Your task to perform on an android device: turn off notifications in google photos Image 0: 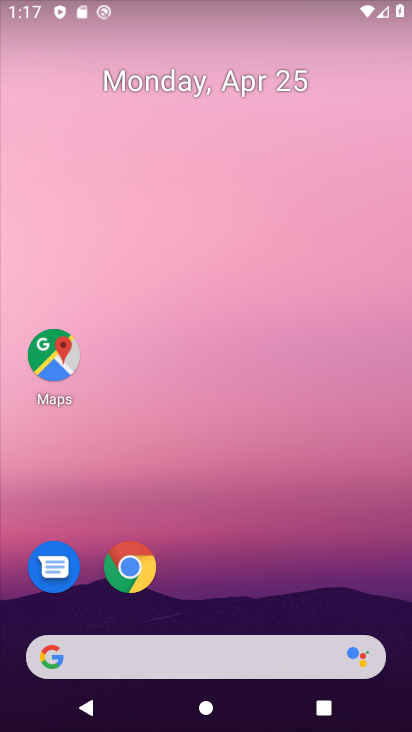
Step 0: drag from (246, 550) to (194, 140)
Your task to perform on an android device: turn off notifications in google photos Image 1: 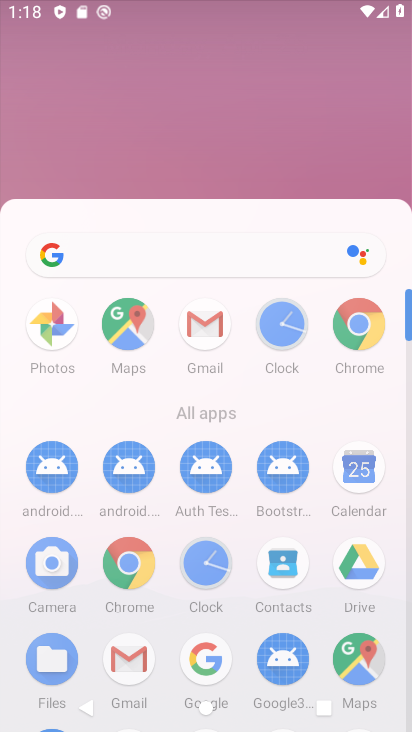
Step 1: drag from (190, 125) to (163, 38)
Your task to perform on an android device: turn off notifications in google photos Image 2: 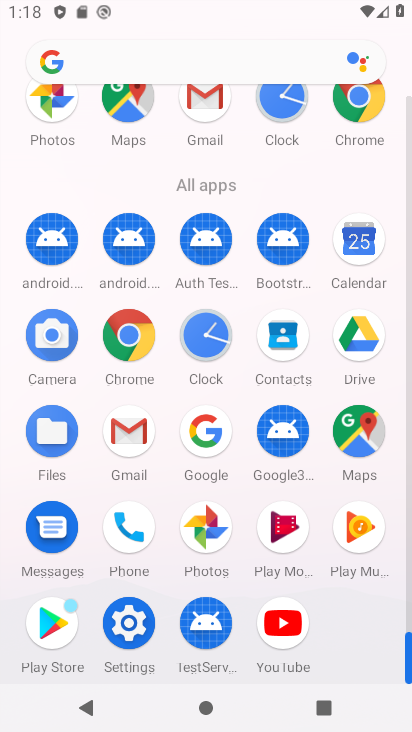
Step 2: click (185, 542)
Your task to perform on an android device: turn off notifications in google photos Image 3: 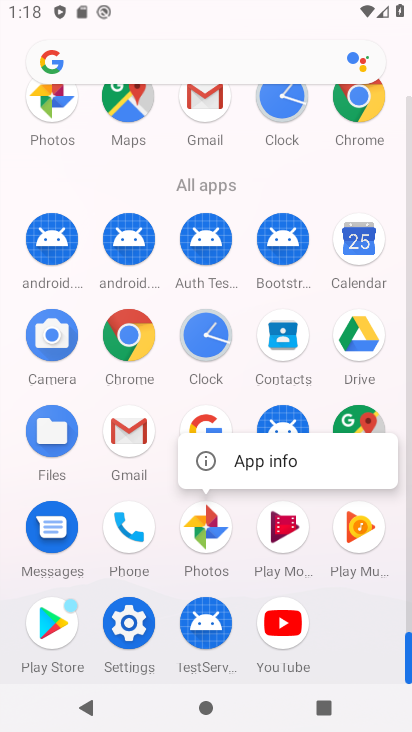
Step 3: click (217, 543)
Your task to perform on an android device: turn off notifications in google photos Image 4: 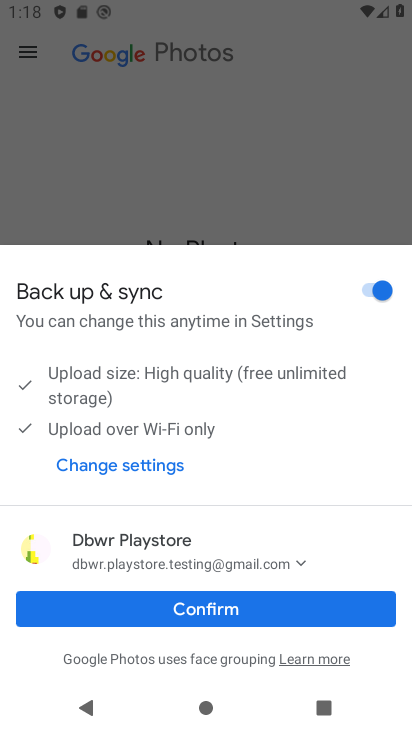
Step 4: click (218, 608)
Your task to perform on an android device: turn off notifications in google photos Image 5: 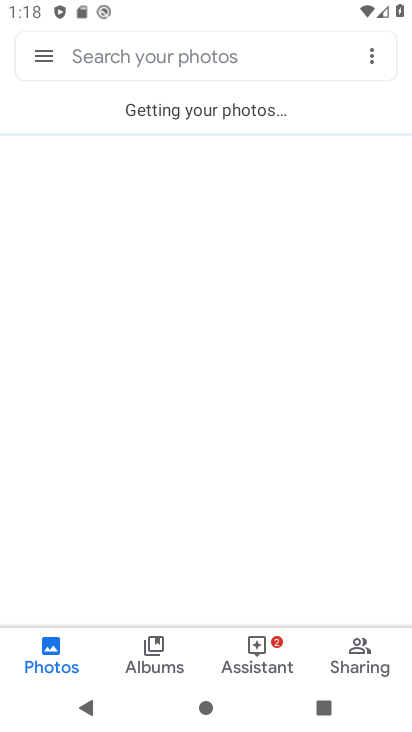
Step 5: click (46, 47)
Your task to perform on an android device: turn off notifications in google photos Image 6: 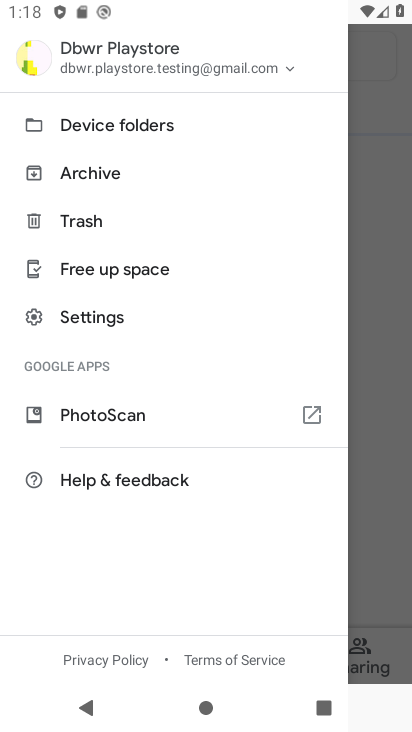
Step 6: click (92, 320)
Your task to perform on an android device: turn off notifications in google photos Image 7: 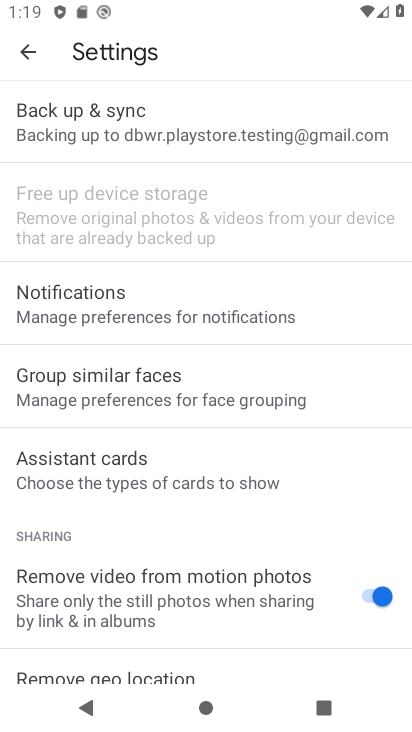
Step 7: drag from (173, 491) to (125, 431)
Your task to perform on an android device: turn off notifications in google photos Image 8: 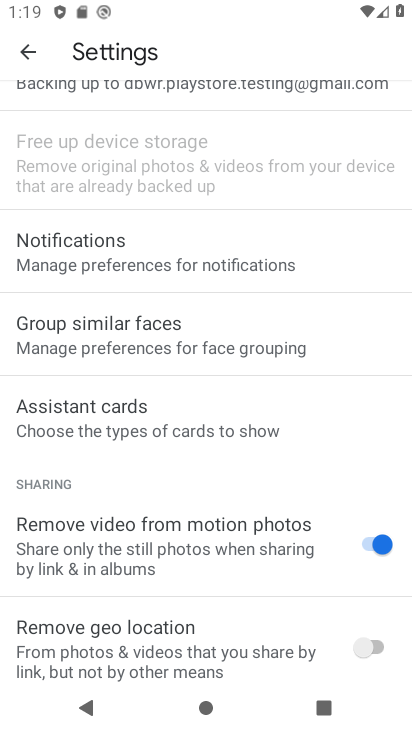
Step 8: click (101, 268)
Your task to perform on an android device: turn off notifications in google photos Image 9: 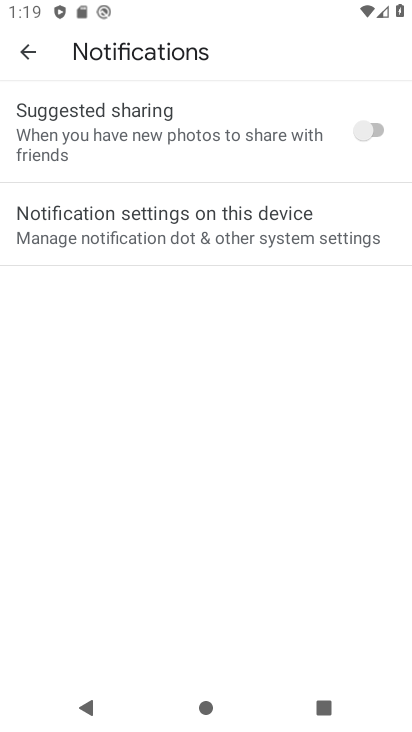
Step 9: click (216, 233)
Your task to perform on an android device: turn off notifications in google photos Image 10: 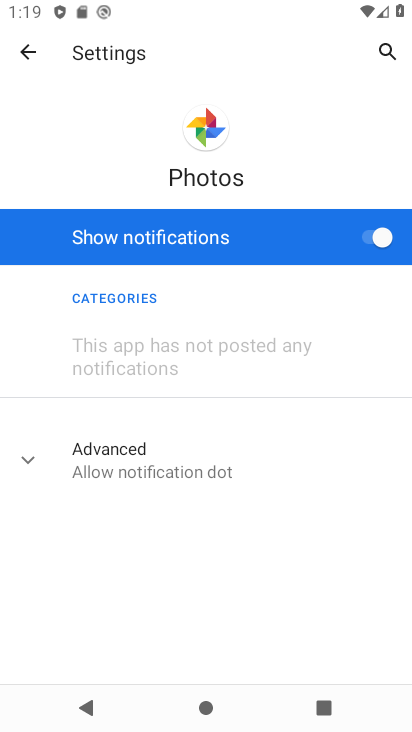
Step 10: click (386, 250)
Your task to perform on an android device: turn off notifications in google photos Image 11: 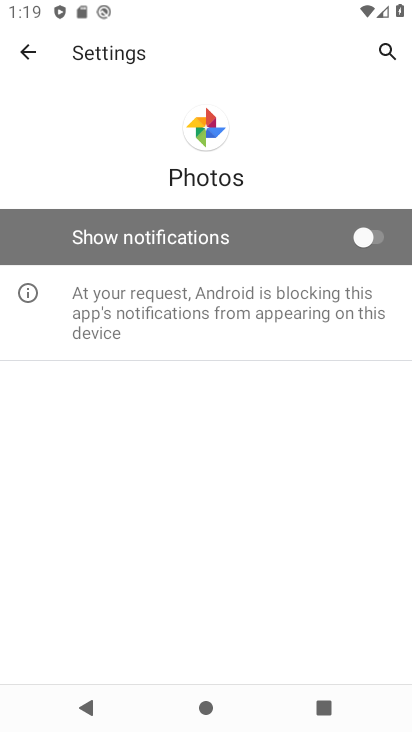
Step 11: task complete